Your task to perform on an android device: turn off translation in the chrome app Image 0: 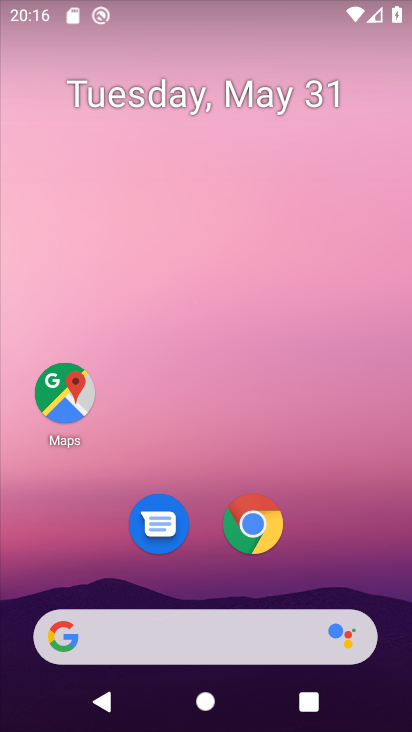
Step 0: click (260, 519)
Your task to perform on an android device: turn off translation in the chrome app Image 1: 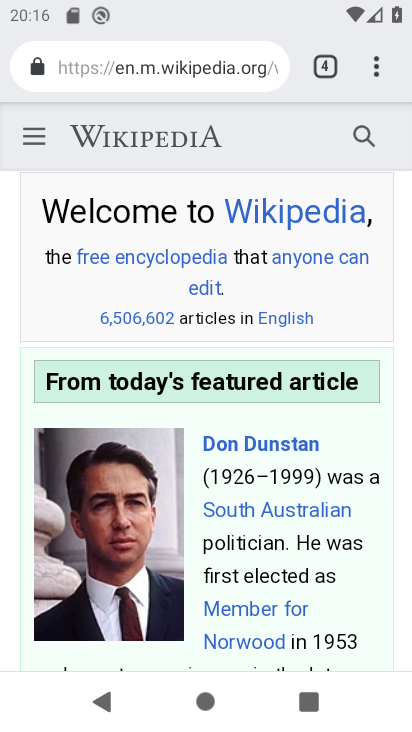
Step 1: click (374, 67)
Your task to perform on an android device: turn off translation in the chrome app Image 2: 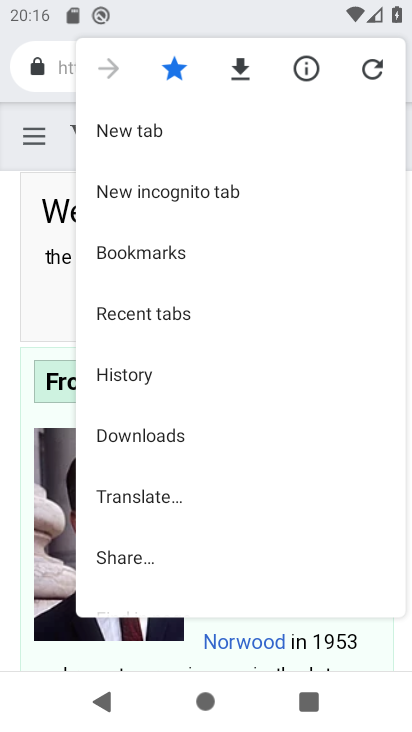
Step 2: drag from (243, 517) to (268, 164)
Your task to perform on an android device: turn off translation in the chrome app Image 3: 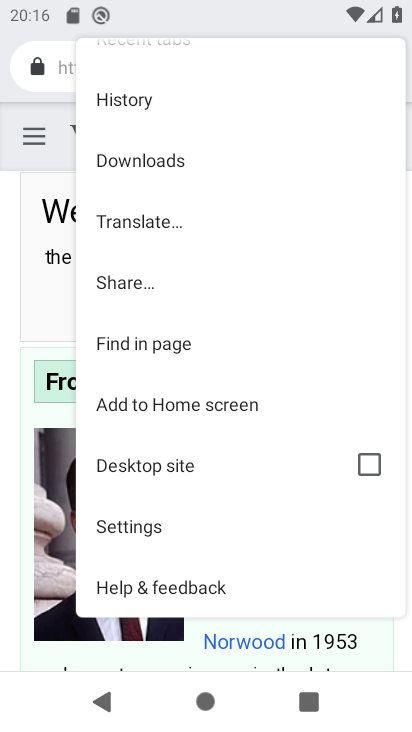
Step 3: click (203, 525)
Your task to perform on an android device: turn off translation in the chrome app Image 4: 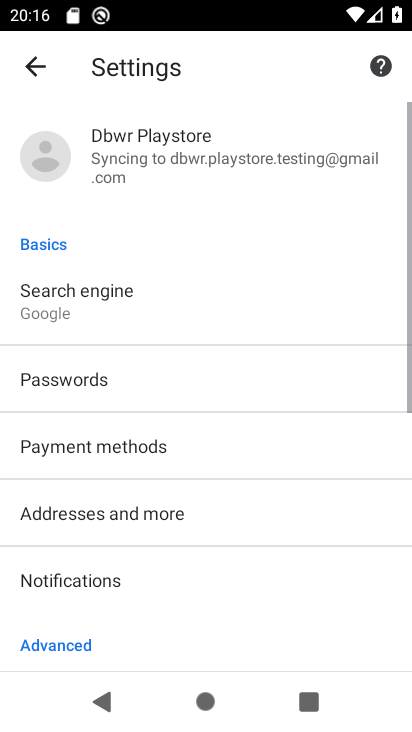
Step 4: drag from (212, 496) to (234, 192)
Your task to perform on an android device: turn off translation in the chrome app Image 5: 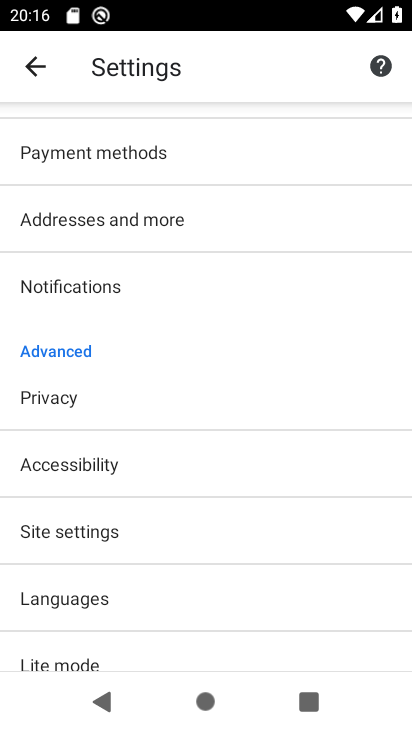
Step 5: click (229, 600)
Your task to perform on an android device: turn off translation in the chrome app Image 6: 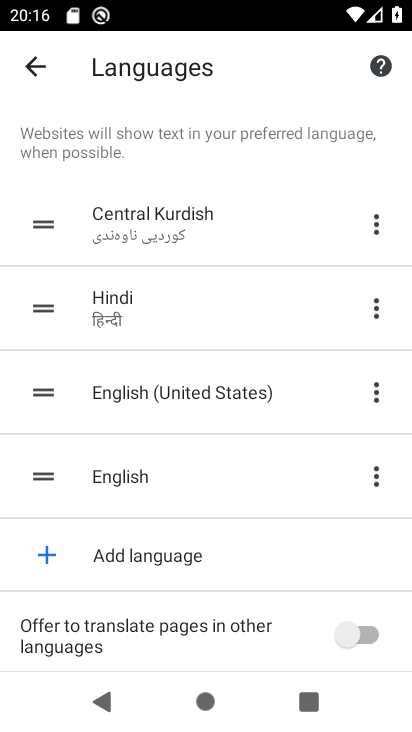
Step 6: task complete